Your task to perform on an android device: What's on my calendar today? Image 0: 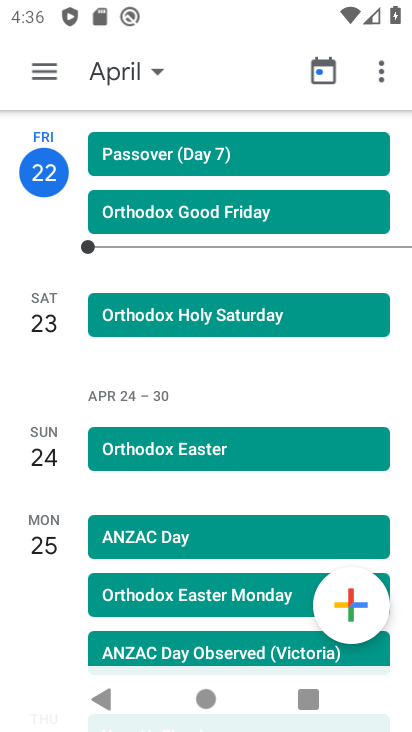
Step 0: drag from (267, 411) to (273, 273)
Your task to perform on an android device: What's on my calendar today? Image 1: 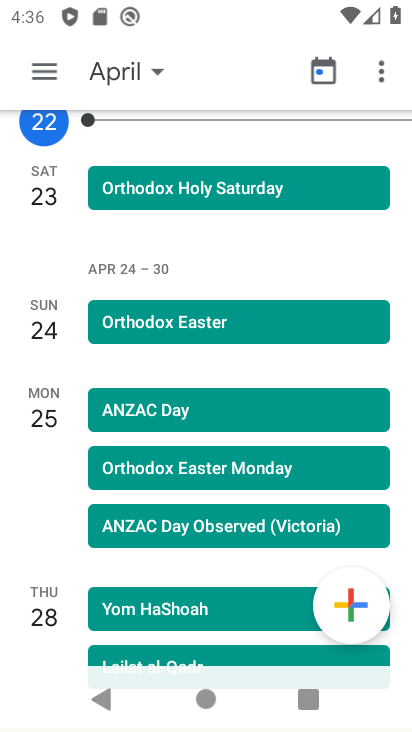
Step 1: task complete